Your task to perform on an android device: Open calendar and show me the second week of next month Image 0: 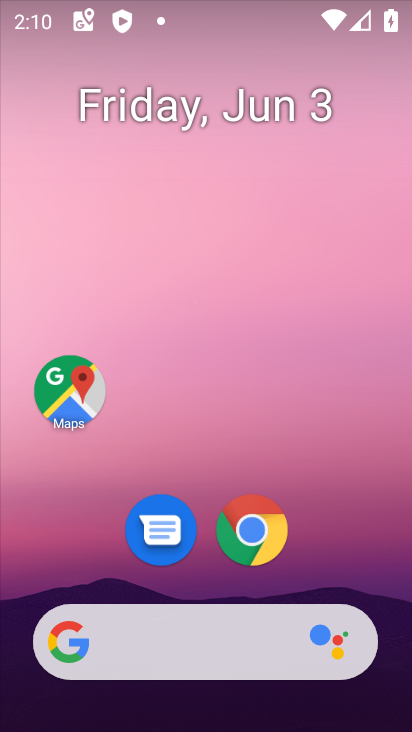
Step 0: drag from (331, 493) to (174, 35)
Your task to perform on an android device: Open calendar and show me the second week of next month Image 1: 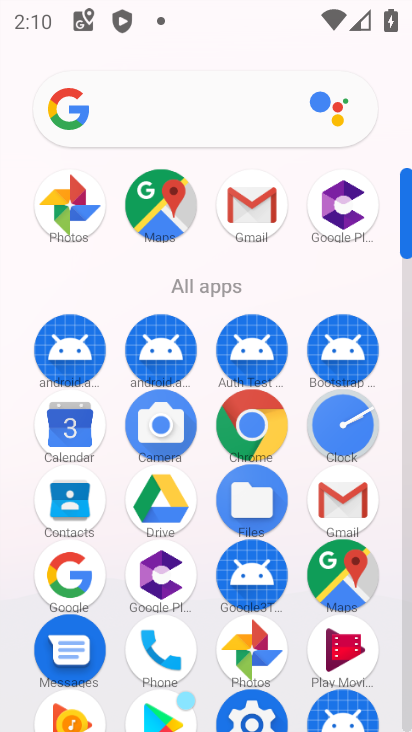
Step 1: click (75, 427)
Your task to perform on an android device: Open calendar and show me the second week of next month Image 2: 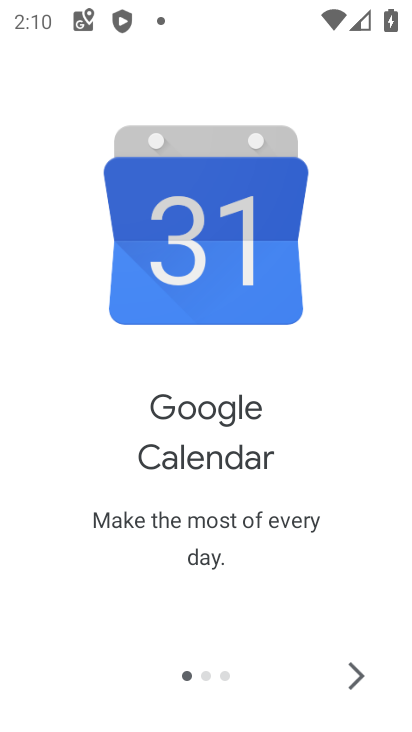
Step 2: click (357, 672)
Your task to perform on an android device: Open calendar and show me the second week of next month Image 3: 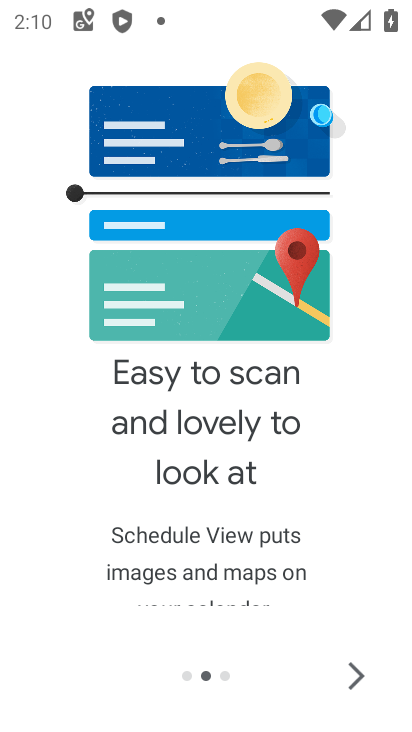
Step 3: click (357, 672)
Your task to perform on an android device: Open calendar and show me the second week of next month Image 4: 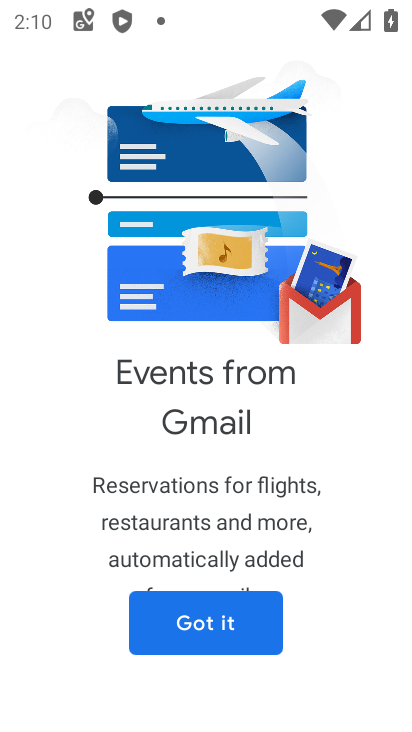
Step 4: click (210, 628)
Your task to perform on an android device: Open calendar and show me the second week of next month Image 5: 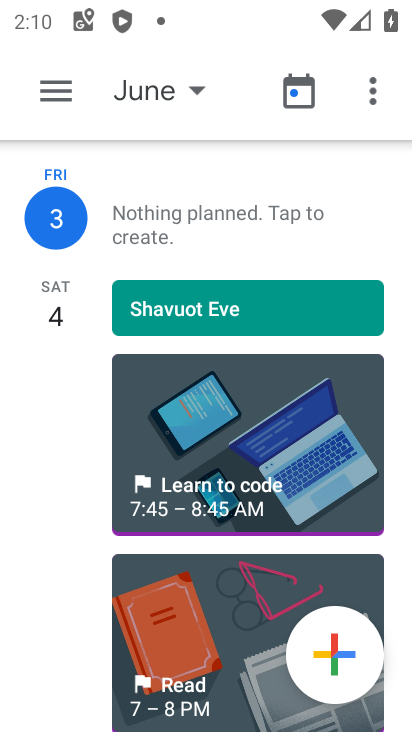
Step 5: click (194, 86)
Your task to perform on an android device: Open calendar and show me the second week of next month Image 6: 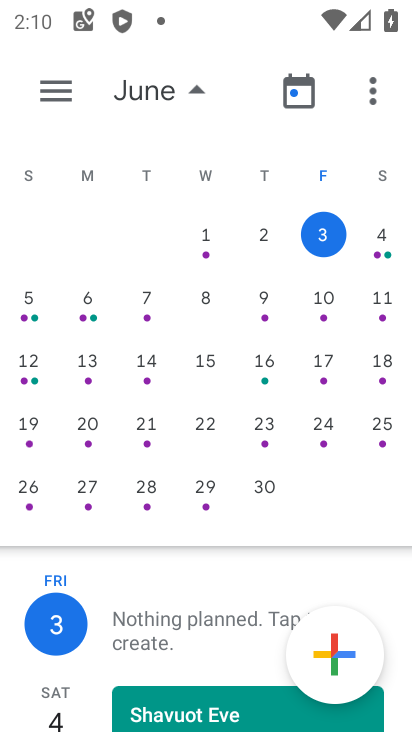
Step 6: drag from (371, 340) to (78, 324)
Your task to perform on an android device: Open calendar and show me the second week of next month Image 7: 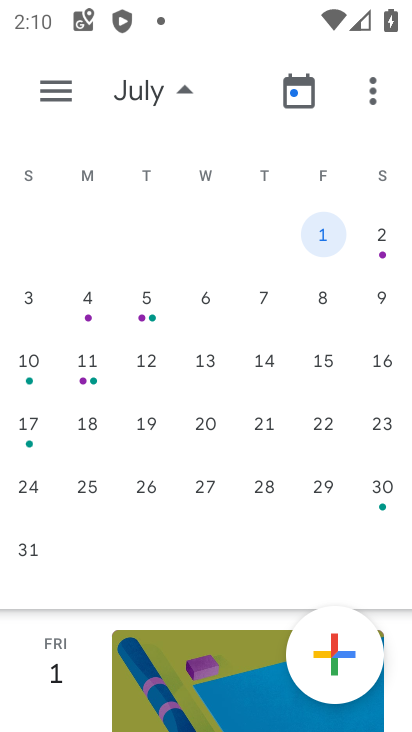
Step 7: click (85, 300)
Your task to perform on an android device: Open calendar and show me the second week of next month Image 8: 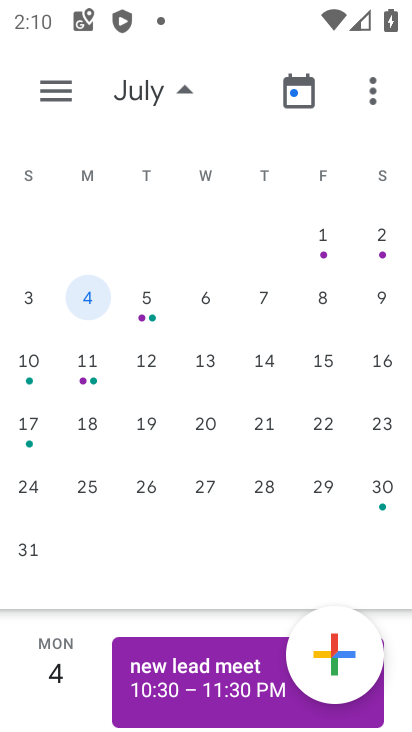
Step 8: click (53, 87)
Your task to perform on an android device: Open calendar and show me the second week of next month Image 9: 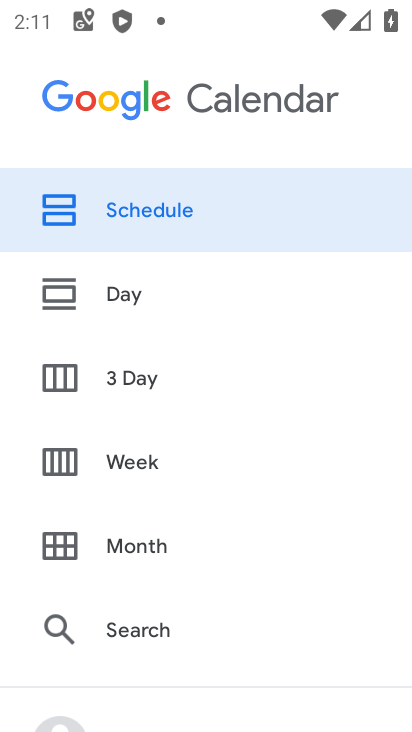
Step 9: click (133, 459)
Your task to perform on an android device: Open calendar and show me the second week of next month Image 10: 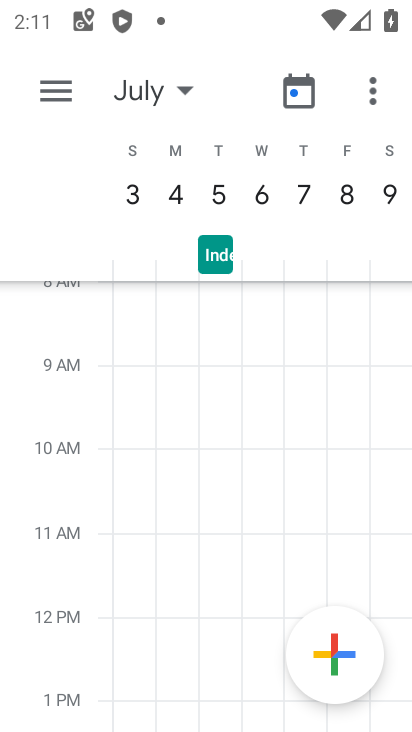
Step 10: task complete